Your task to perform on an android device: open a bookmark in the chrome app Image 0: 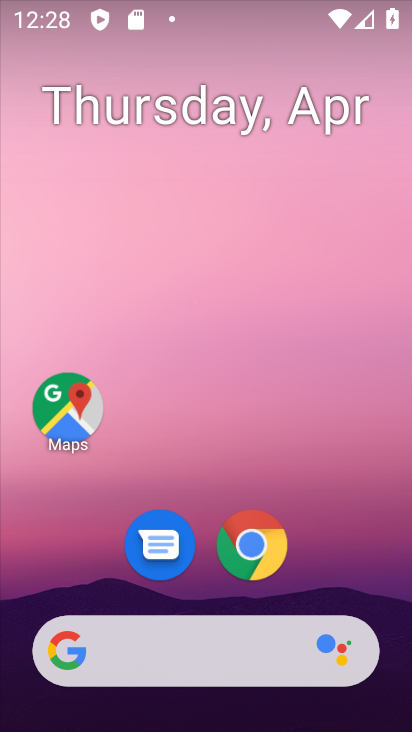
Step 0: click (259, 542)
Your task to perform on an android device: open a bookmark in the chrome app Image 1: 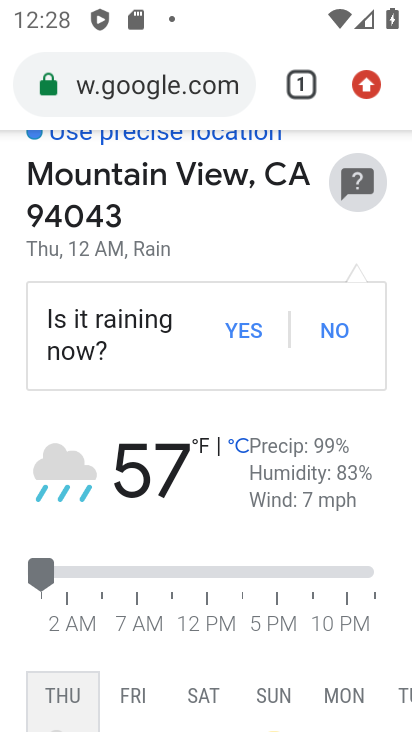
Step 1: task complete